Your task to perform on an android device: Show me popular games on the Play Store Image 0: 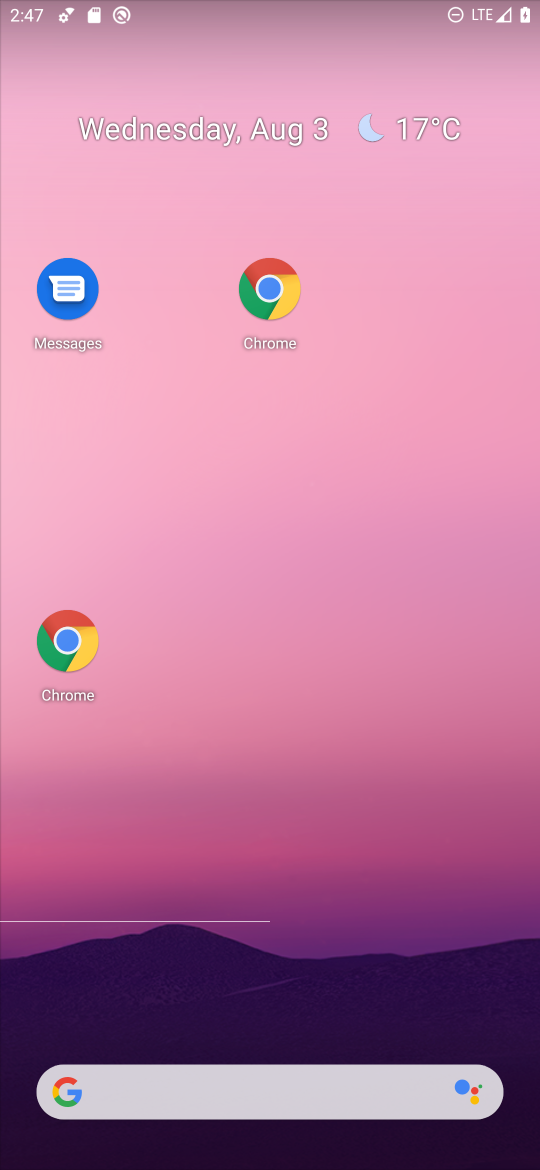
Step 0: drag from (340, 928) to (389, 247)
Your task to perform on an android device: Show me popular games on the Play Store Image 1: 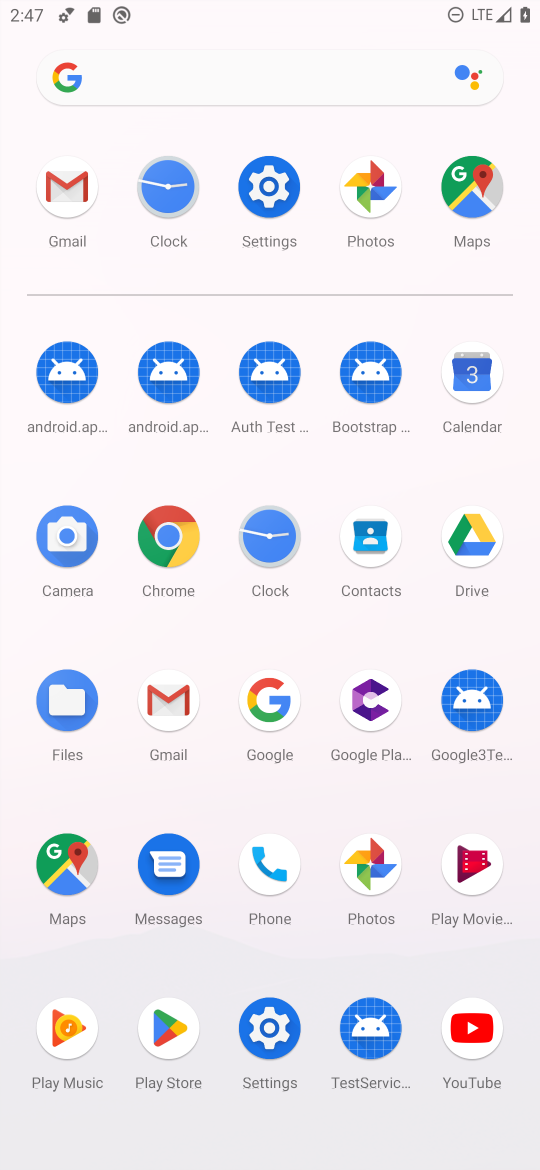
Step 1: click (169, 743)
Your task to perform on an android device: Show me popular games on the Play Store Image 2: 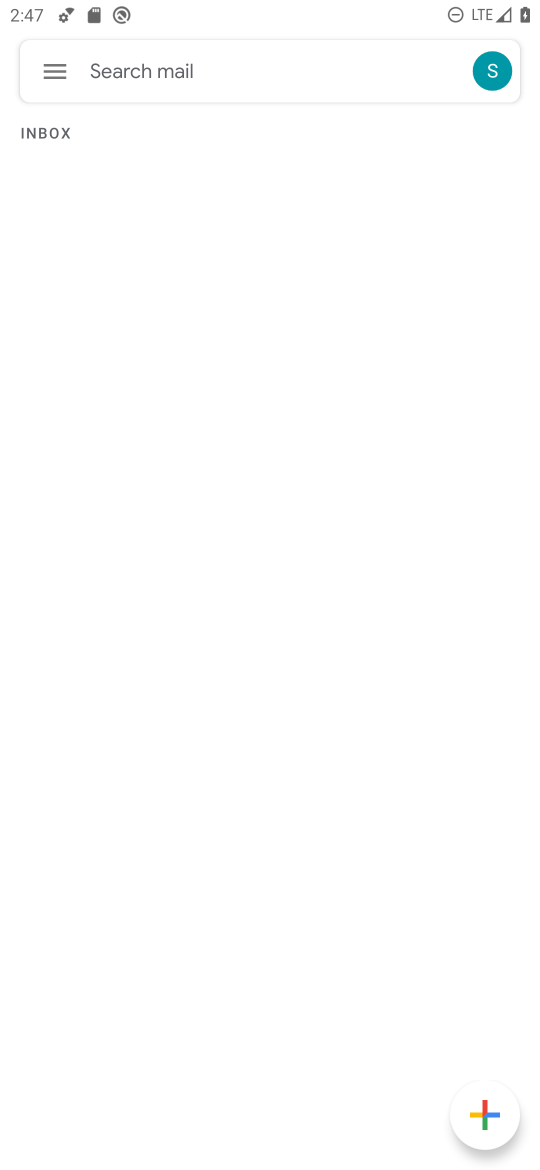
Step 2: press home button
Your task to perform on an android device: Show me popular games on the Play Store Image 3: 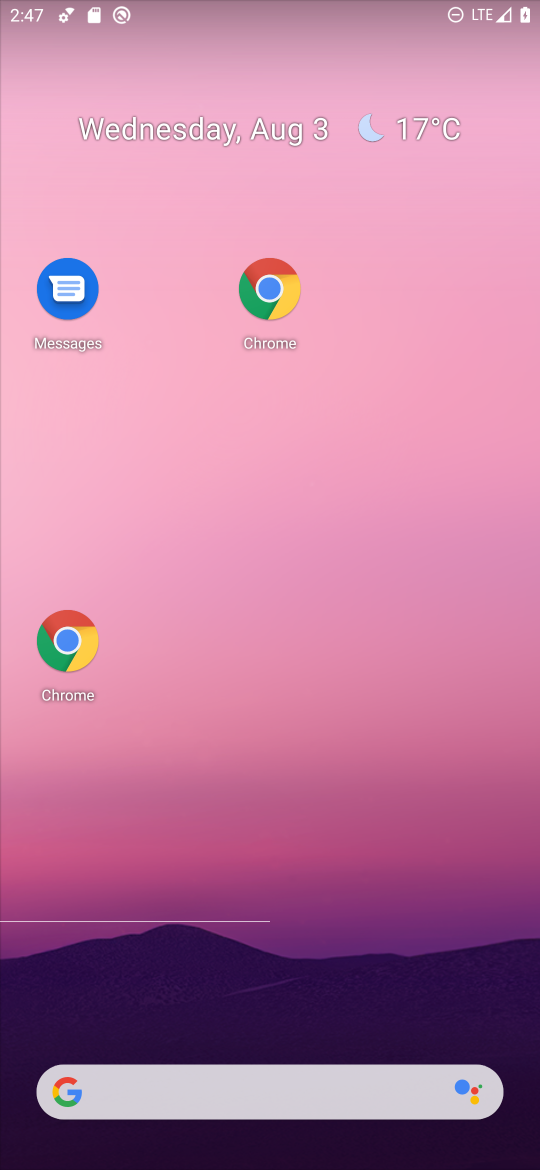
Step 3: drag from (338, 994) to (349, 58)
Your task to perform on an android device: Show me popular games on the Play Store Image 4: 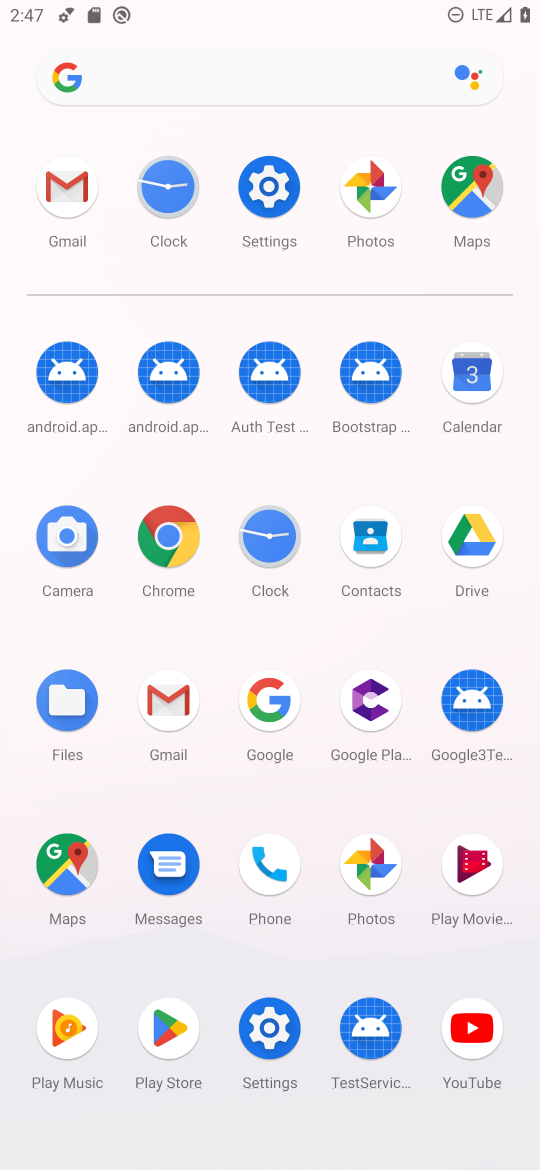
Step 4: click (167, 1039)
Your task to perform on an android device: Show me popular games on the Play Store Image 5: 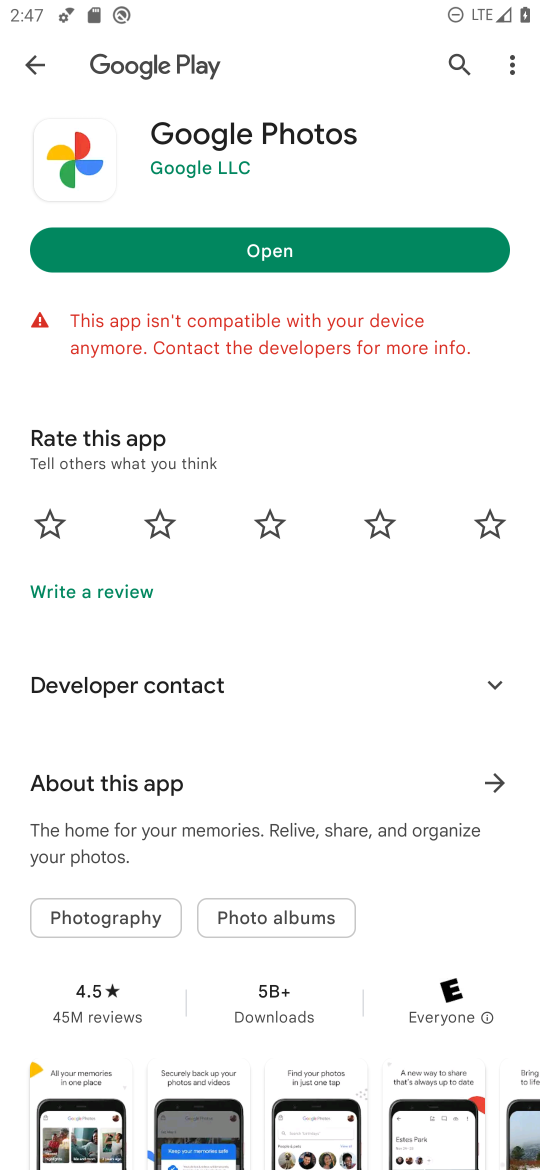
Step 5: click (41, 73)
Your task to perform on an android device: Show me popular games on the Play Store Image 6: 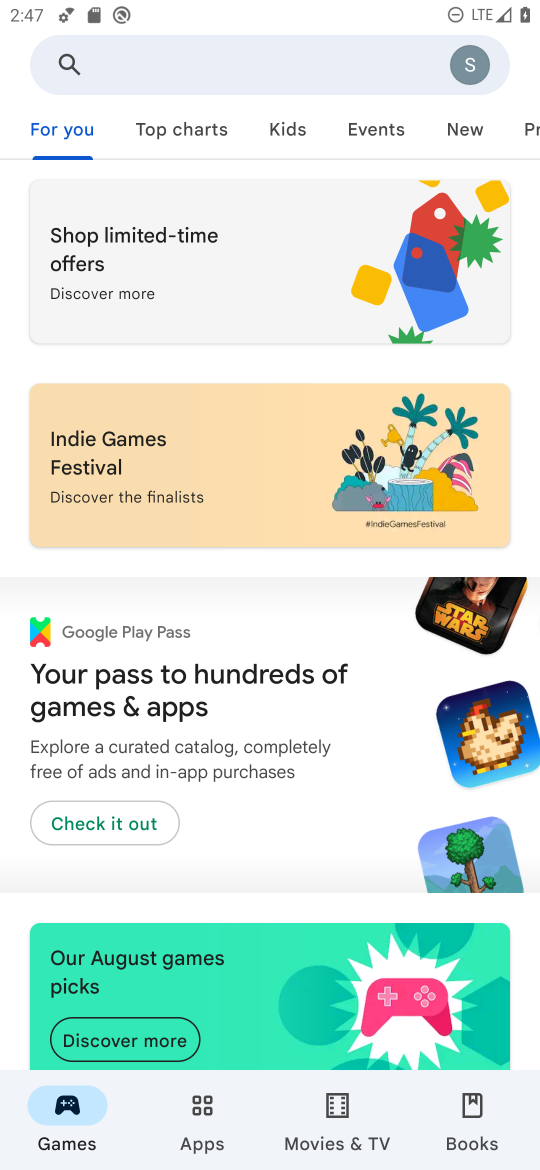
Step 6: click (210, 1110)
Your task to perform on an android device: Show me popular games on the Play Store Image 7: 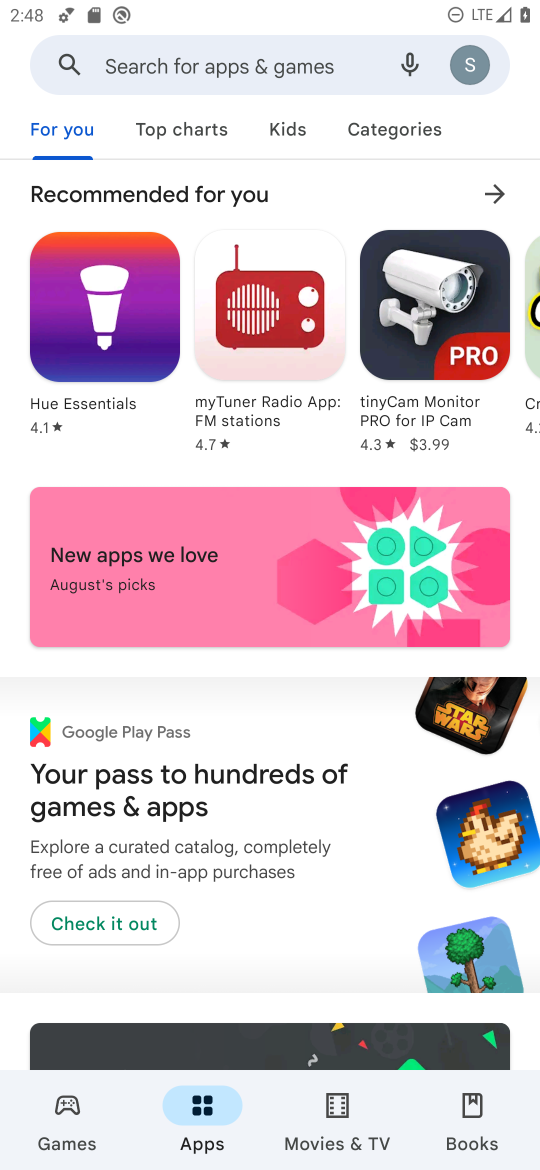
Step 7: click (42, 1090)
Your task to perform on an android device: Show me popular games on the Play Store Image 8: 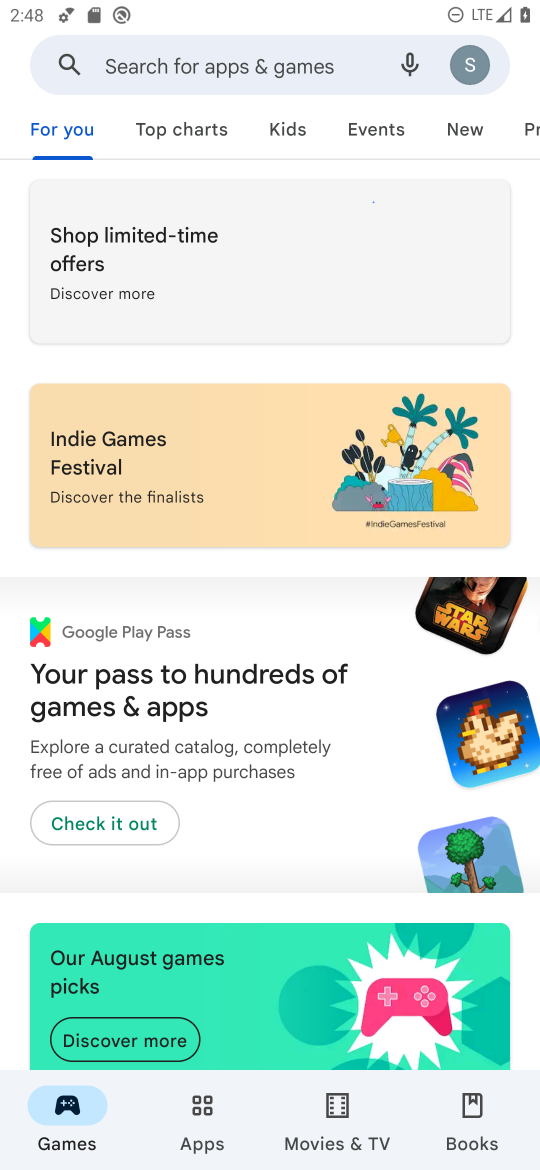
Step 8: task complete